Your task to perform on an android device: Open sound settings Image 0: 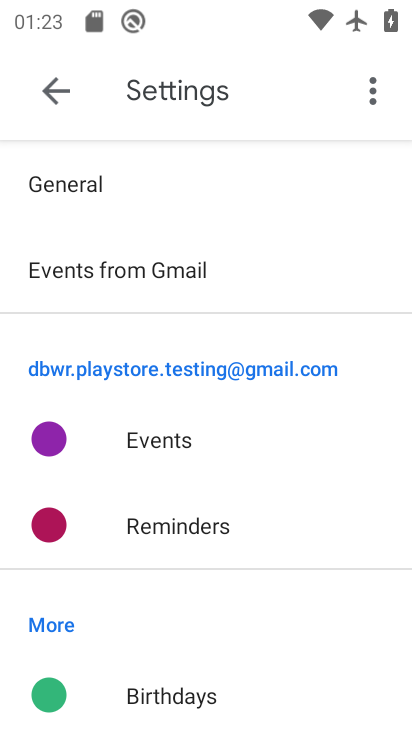
Step 0: press home button
Your task to perform on an android device: Open sound settings Image 1: 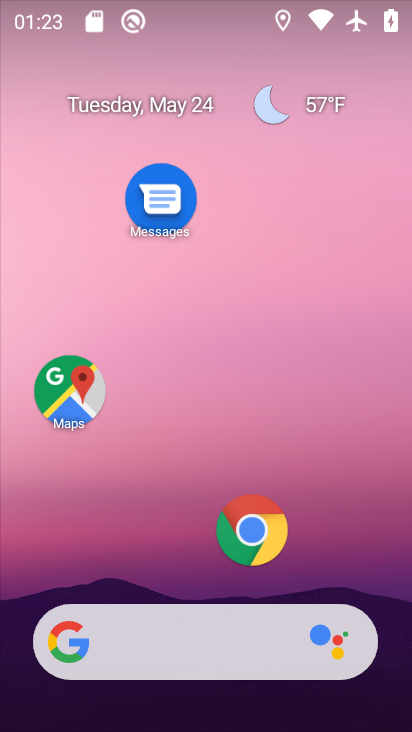
Step 1: drag from (332, 545) to (239, 123)
Your task to perform on an android device: Open sound settings Image 2: 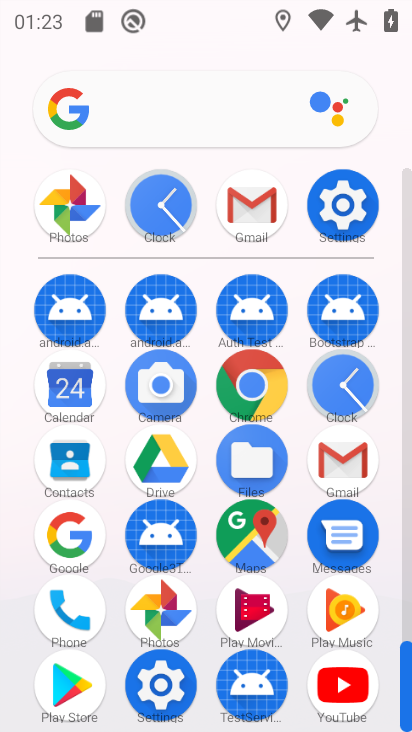
Step 2: click (159, 697)
Your task to perform on an android device: Open sound settings Image 3: 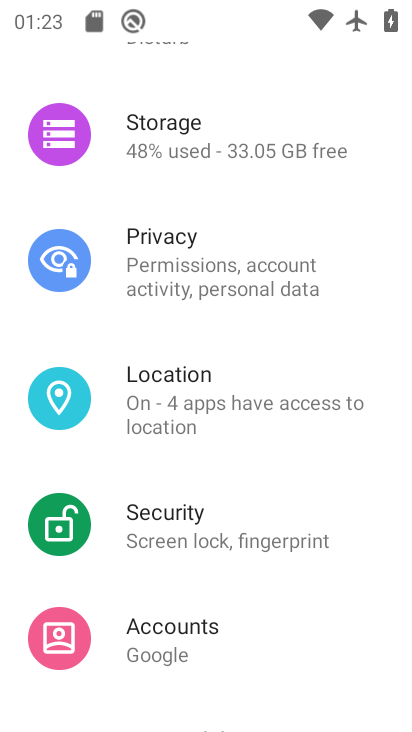
Step 3: drag from (209, 599) to (252, 704)
Your task to perform on an android device: Open sound settings Image 4: 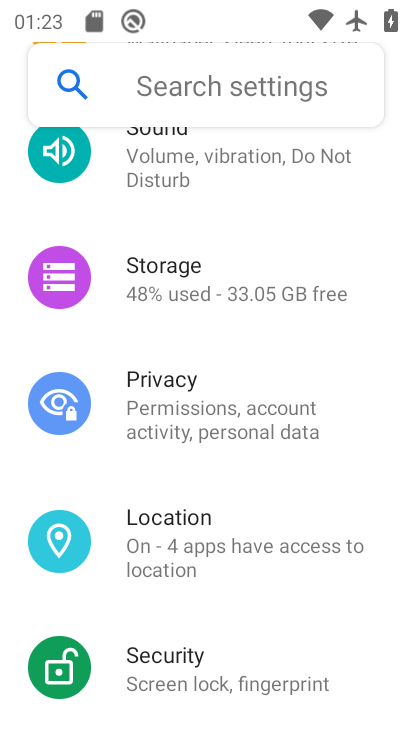
Step 4: drag from (250, 353) to (251, 592)
Your task to perform on an android device: Open sound settings Image 5: 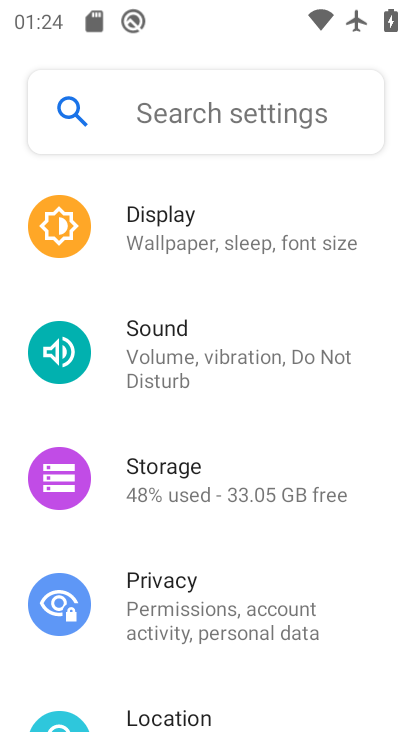
Step 5: click (190, 357)
Your task to perform on an android device: Open sound settings Image 6: 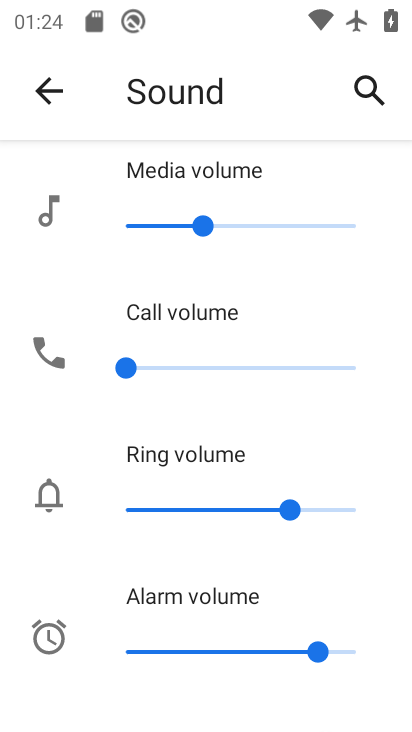
Step 6: task complete